Your task to perform on an android device: change the clock style Image 0: 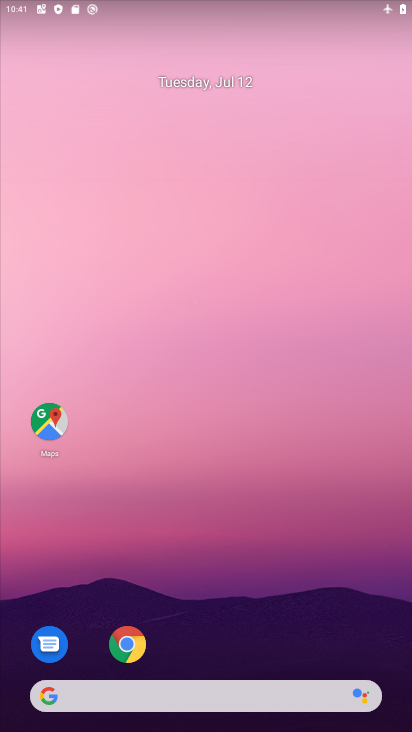
Step 0: drag from (298, 548) to (337, 148)
Your task to perform on an android device: change the clock style Image 1: 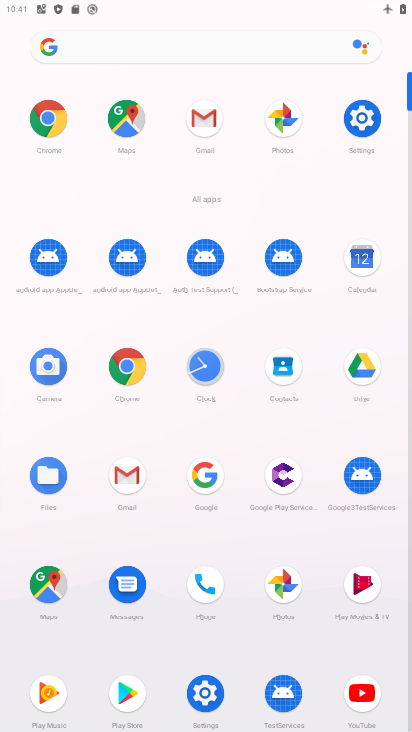
Step 1: click (199, 377)
Your task to perform on an android device: change the clock style Image 2: 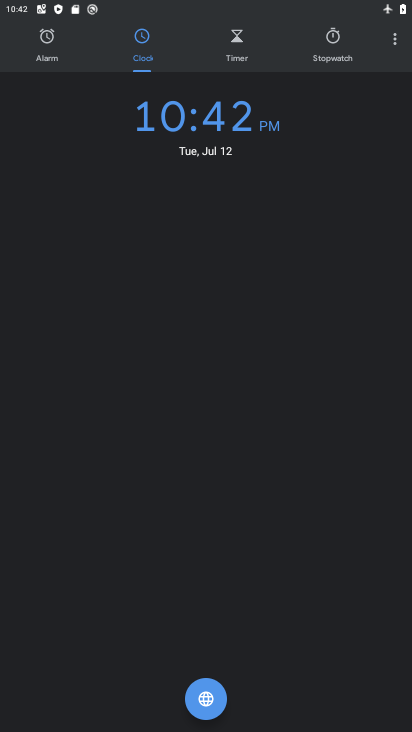
Step 2: click (393, 33)
Your task to perform on an android device: change the clock style Image 3: 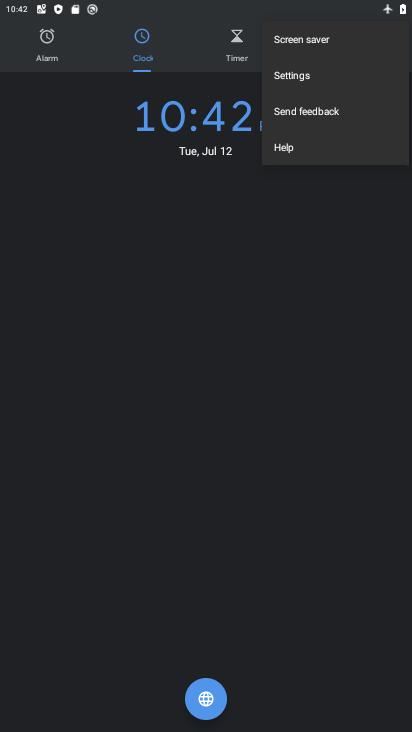
Step 3: click (294, 82)
Your task to perform on an android device: change the clock style Image 4: 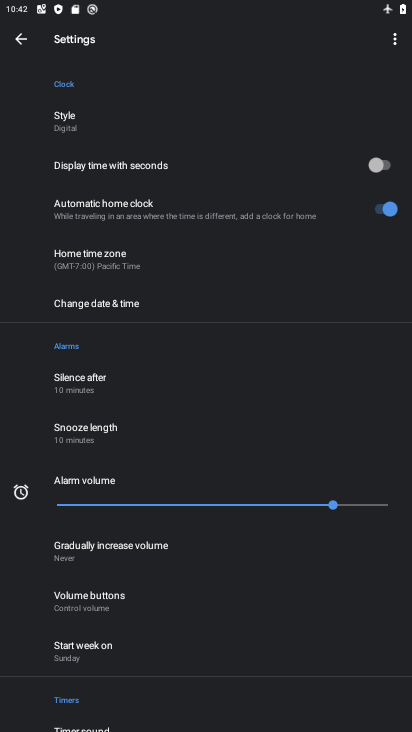
Step 4: click (102, 125)
Your task to perform on an android device: change the clock style Image 5: 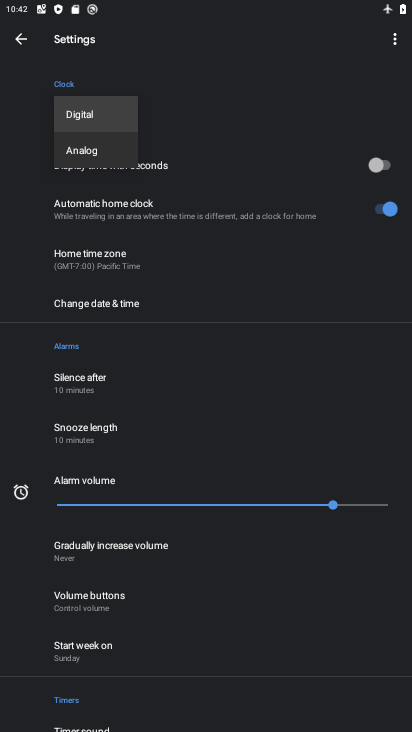
Step 5: click (104, 156)
Your task to perform on an android device: change the clock style Image 6: 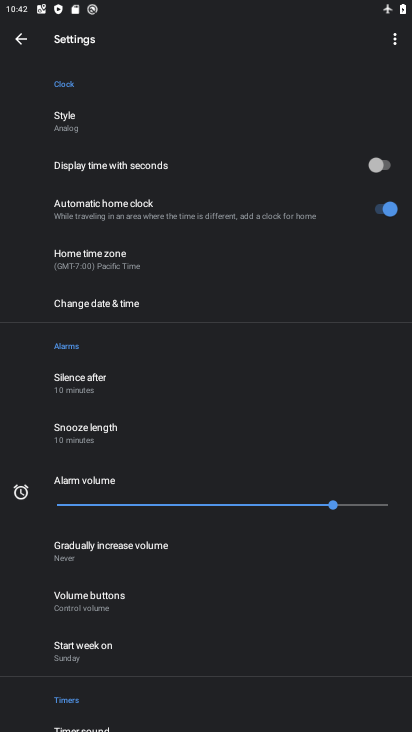
Step 6: task complete